Your task to perform on an android device: turn off sleep mode Image 0: 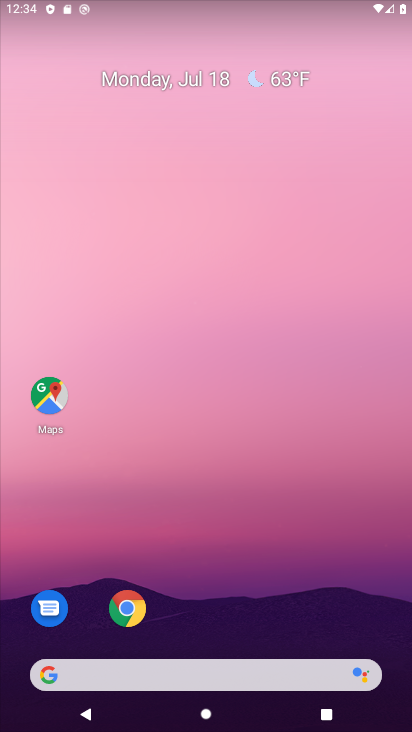
Step 0: drag from (176, 555) to (17, 9)
Your task to perform on an android device: turn off sleep mode Image 1: 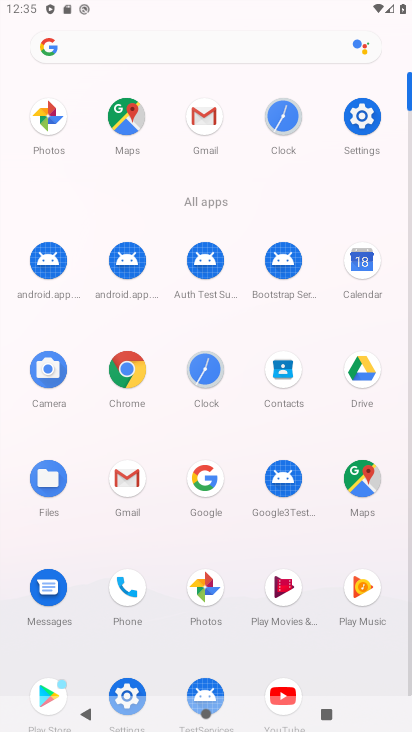
Step 1: click (364, 102)
Your task to perform on an android device: turn off sleep mode Image 2: 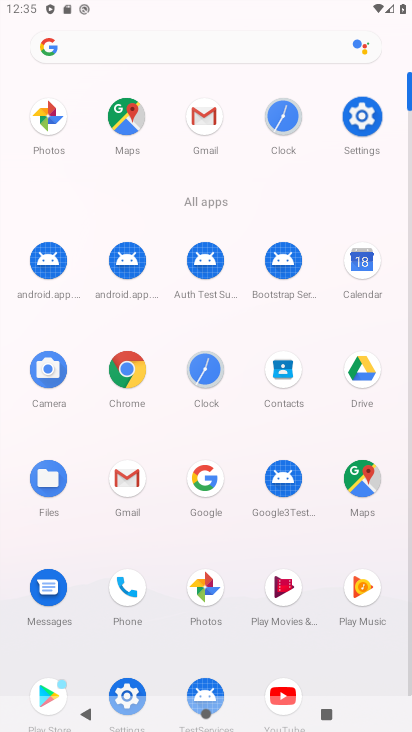
Step 2: click (363, 102)
Your task to perform on an android device: turn off sleep mode Image 3: 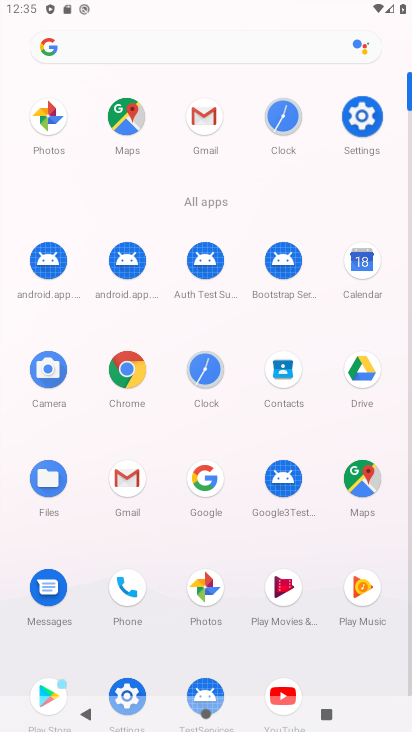
Step 3: click (363, 105)
Your task to perform on an android device: turn off sleep mode Image 4: 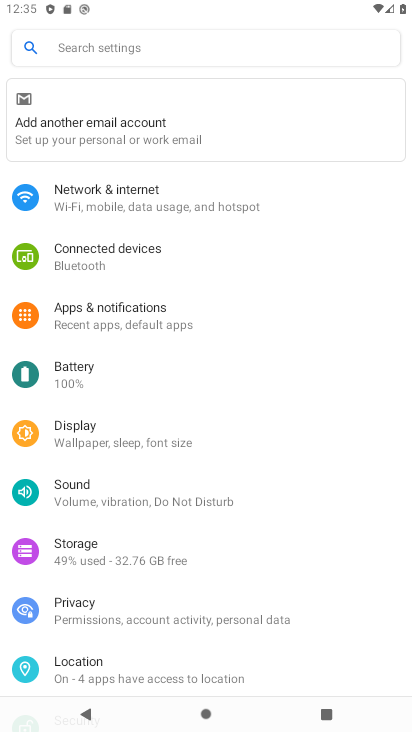
Step 4: click (363, 105)
Your task to perform on an android device: turn off sleep mode Image 5: 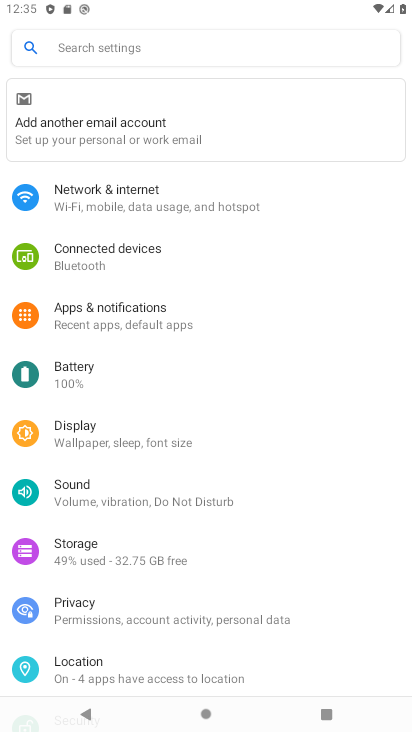
Step 5: click (98, 450)
Your task to perform on an android device: turn off sleep mode Image 6: 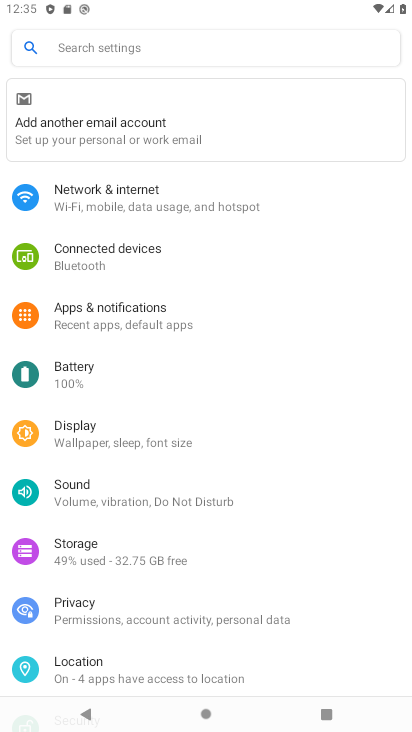
Step 6: click (80, 433)
Your task to perform on an android device: turn off sleep mode Image 7: 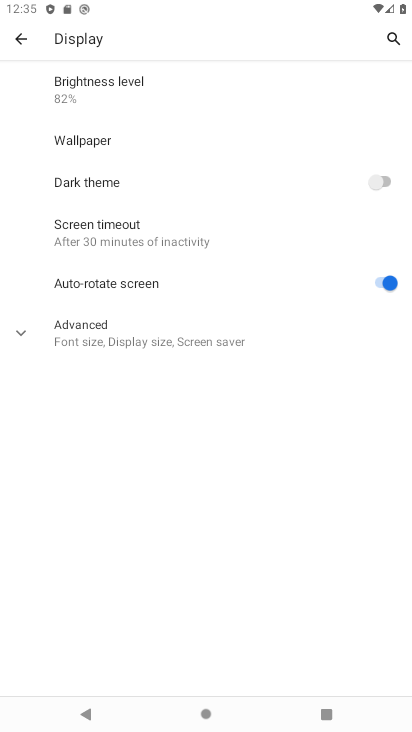
Step 7: click (73, 243)
Your task to perform on an android device: turn off sleep mode Image 8: 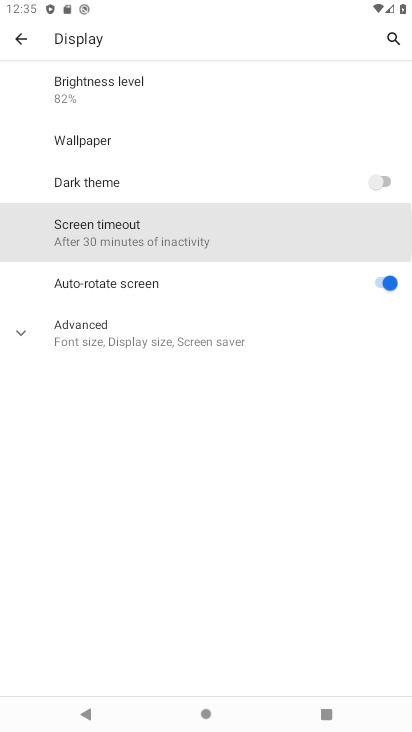
Step 8: click (74, 242)
Your task to perform on an android device: turn off sleep mode Image 9: 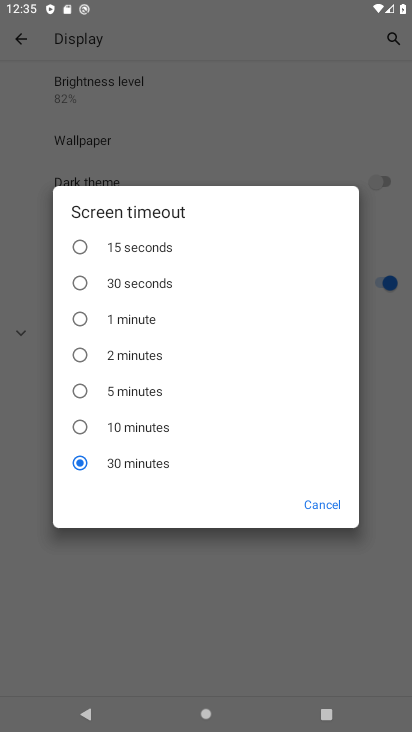
Step 9: click (88, 395)
Your task to perform on an android device: turn off sleep mode Image 10: 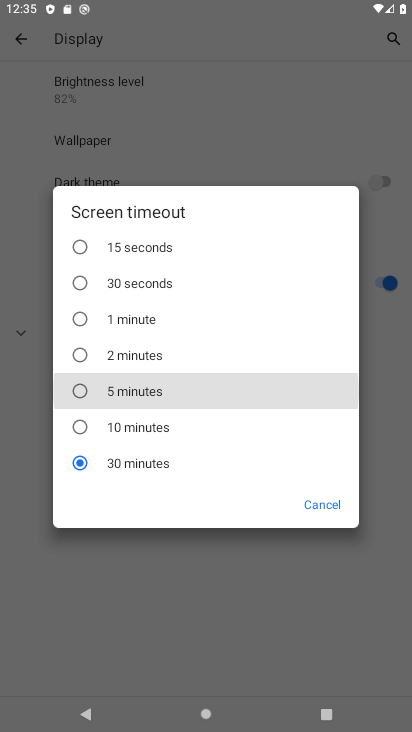
Step 10: click (75, 389)
Your task to perform on an android device: turn off sleep mode Image 11: 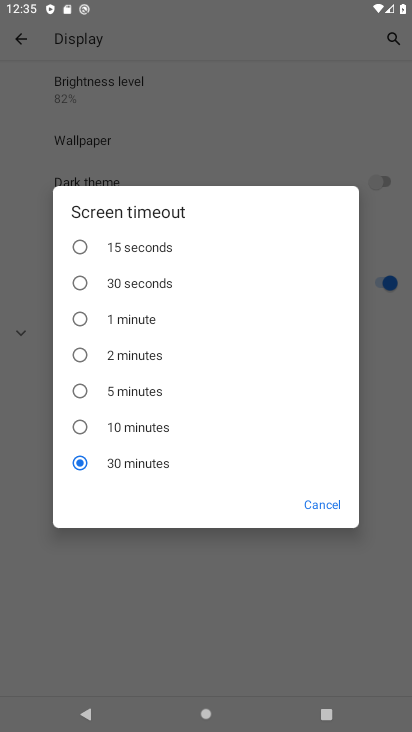
Step 11: click (75, 389)
Your task to perform on an android device: turn off sleep mode Image 12: 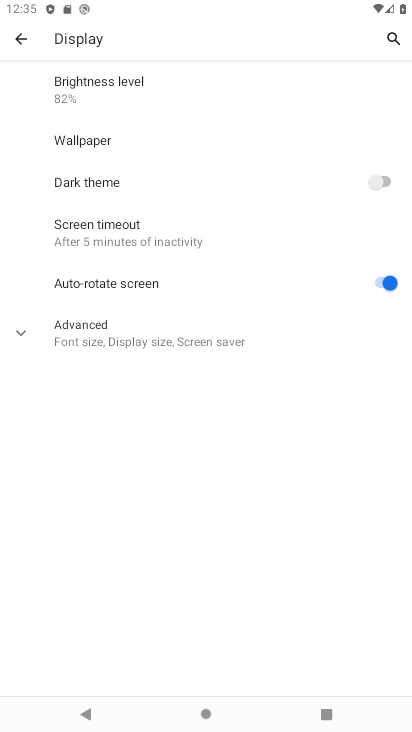
Step 12: task complete